Your task to perform on an android device: open app "Google Play Music" (install if not already installed) Image 0: 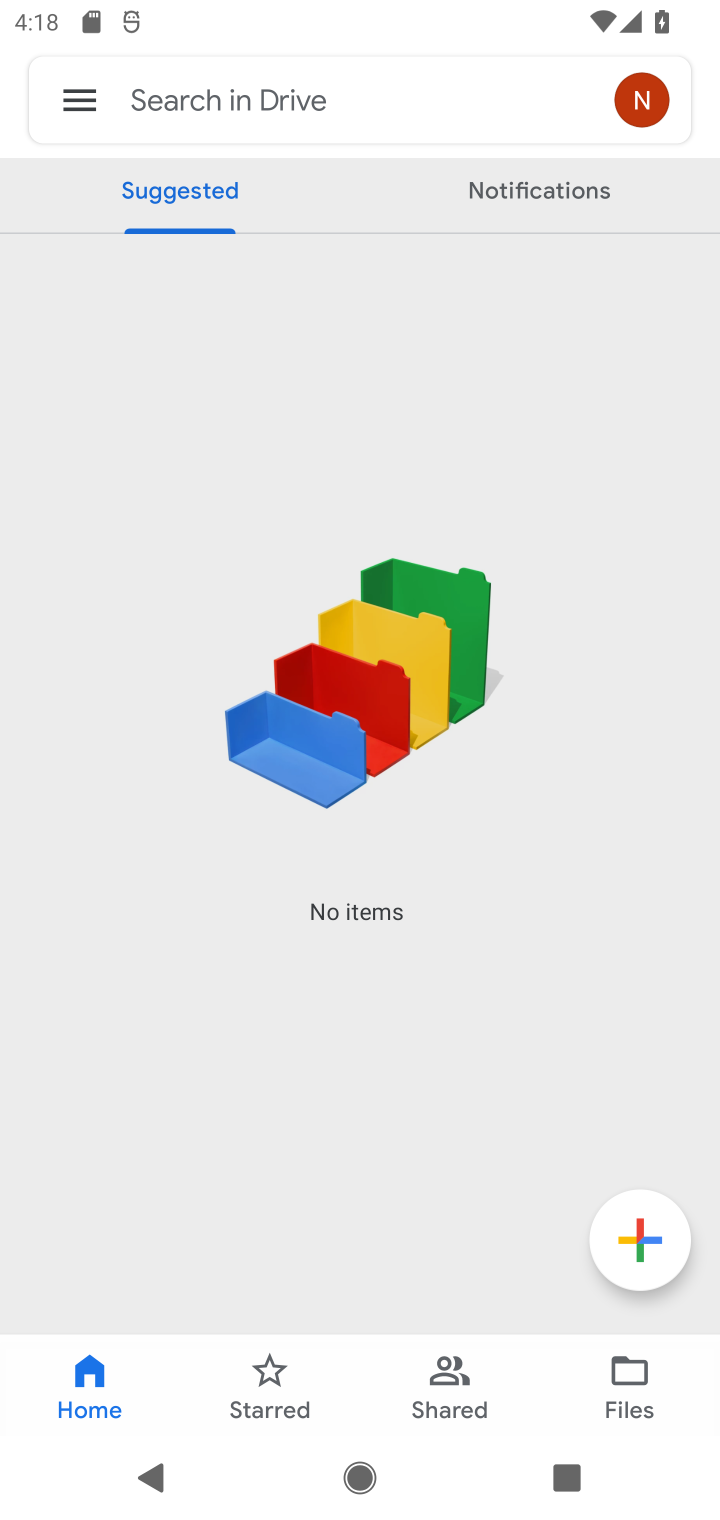
Step 0: press home button
Your task to perform on an android device: open app "Google Play Music" (install if not already installed) Image 1: 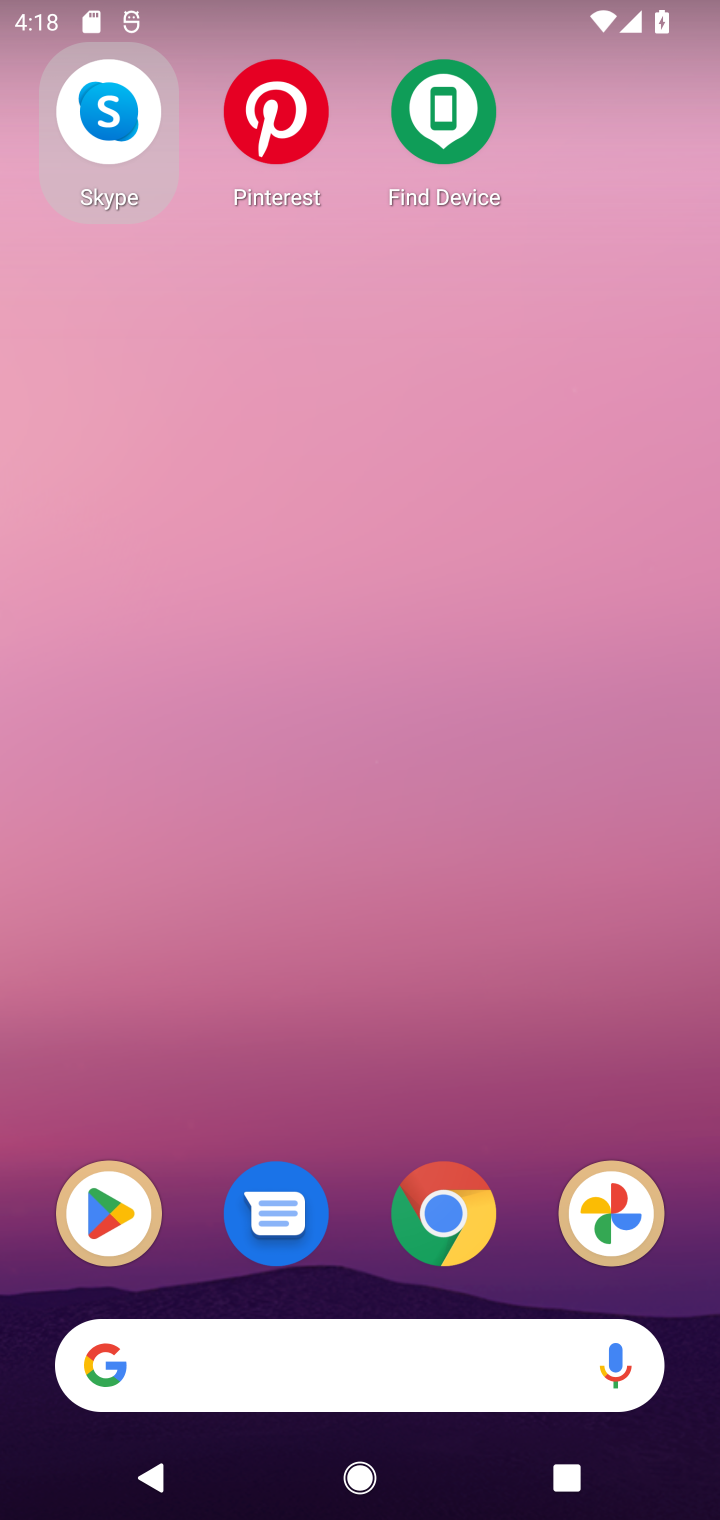
Step 1: drag from (522, 1143) to (503, 145)
Your task to perform on an android device: open app "Google Play Music" (install if not already installed) Image 2: 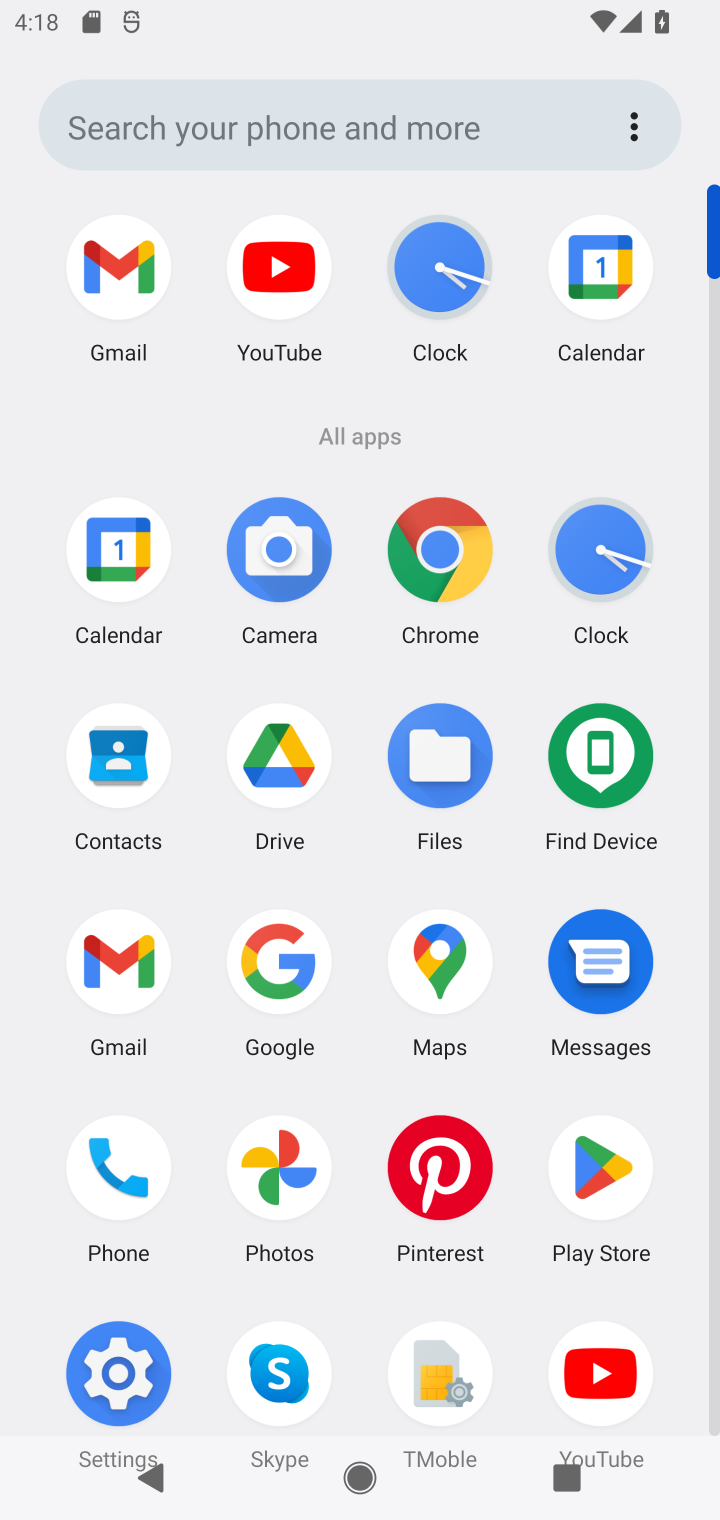
Step 2: click (604, 1162)
Your task to perform on an android device: open app "Google Play Music" (install if not already installed) Image 3: 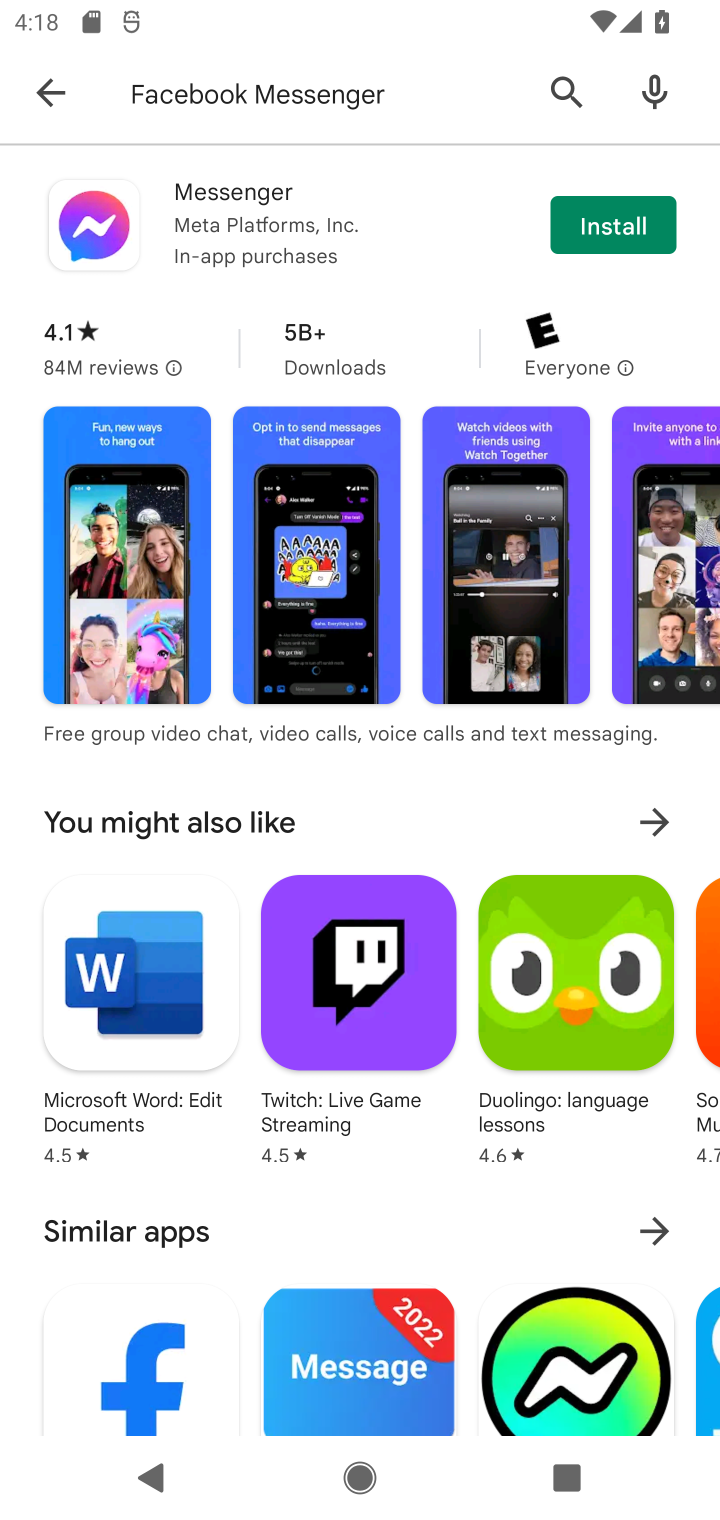
Step 3: click (283, 107)
Your task to perform on an android device: open app "Google Play Music" (install if not already installed) Image 4: 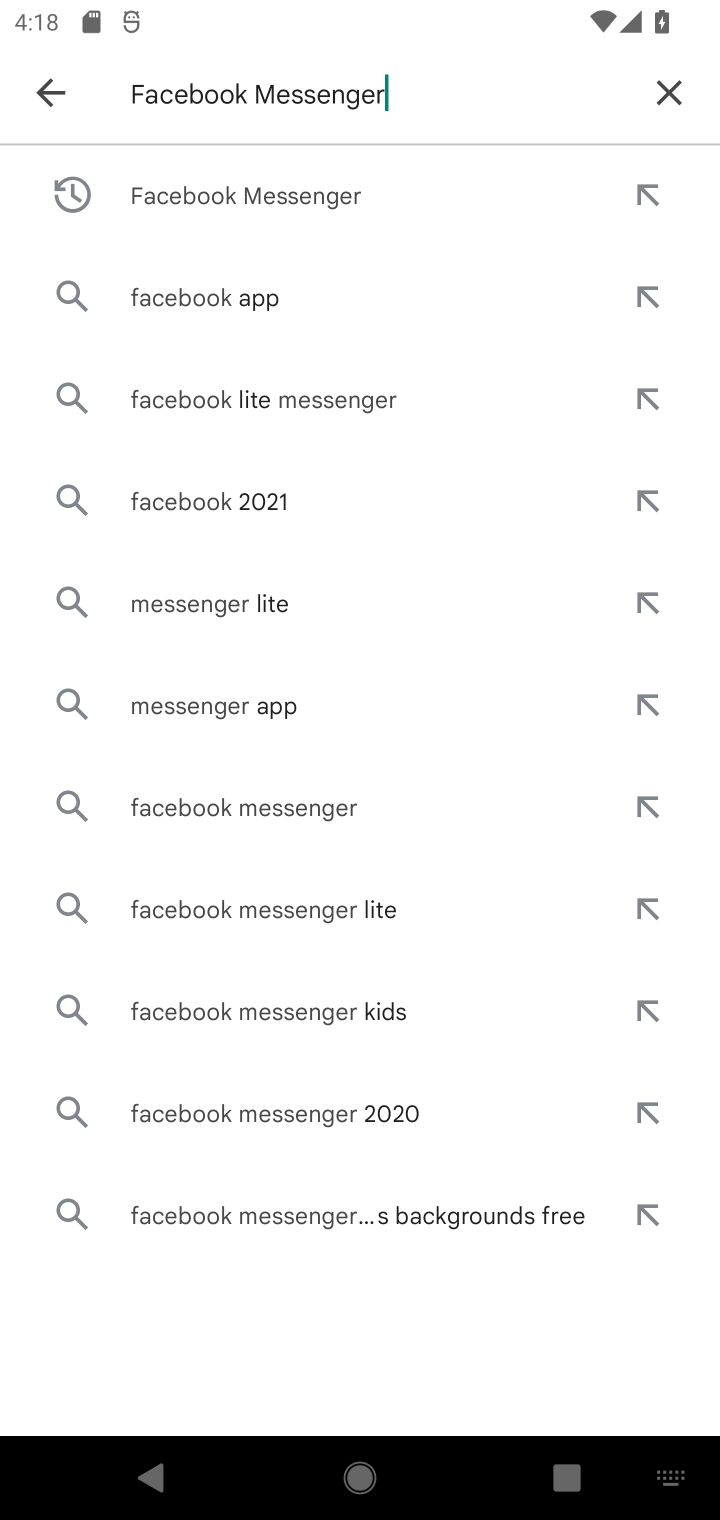
Step 4: click (658, 94)
Your task to perform on an android device: open app "Google Play Music" (install if not already installed) Image 5: 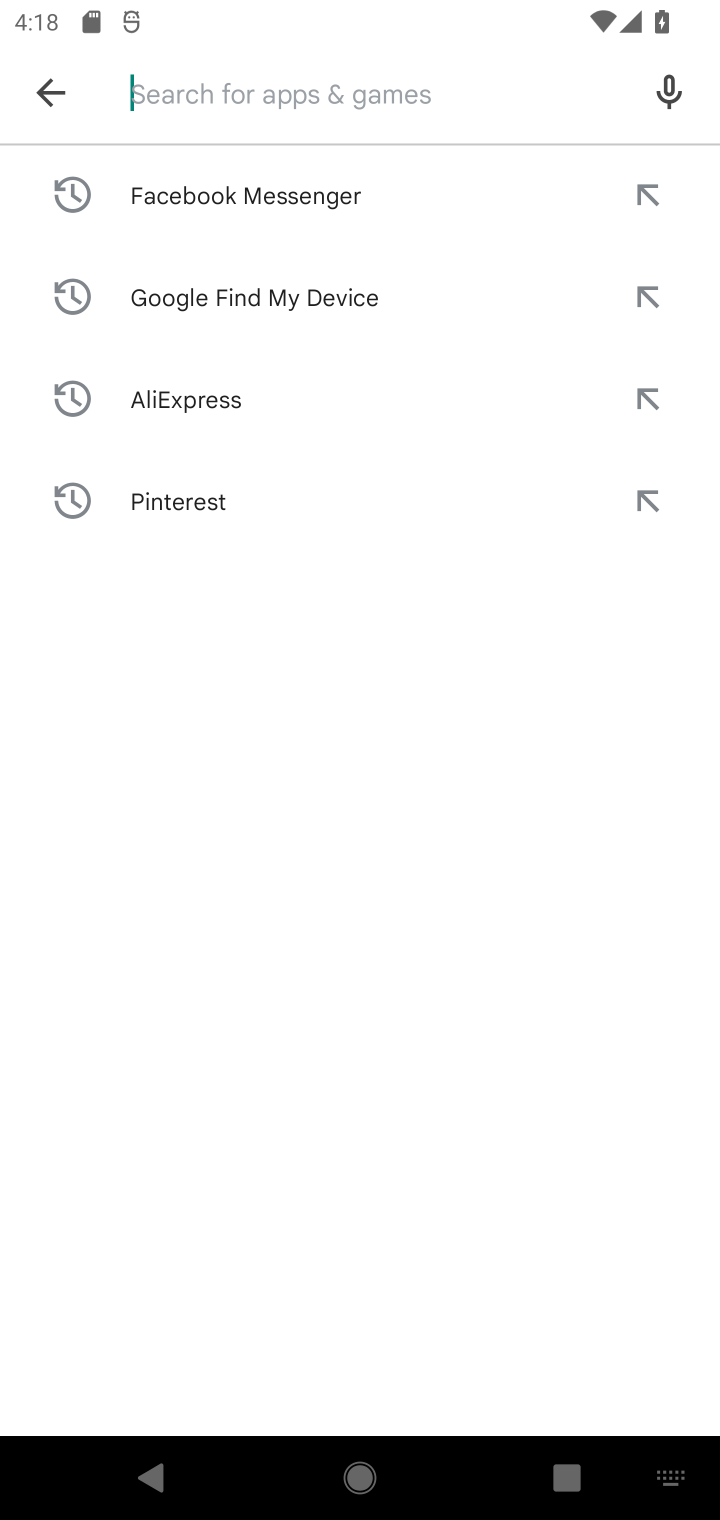
Step 5: type "Google Play Music"
Your task to perform on an android device: open app "Google Play Music" (install if not already installed) Image 6: 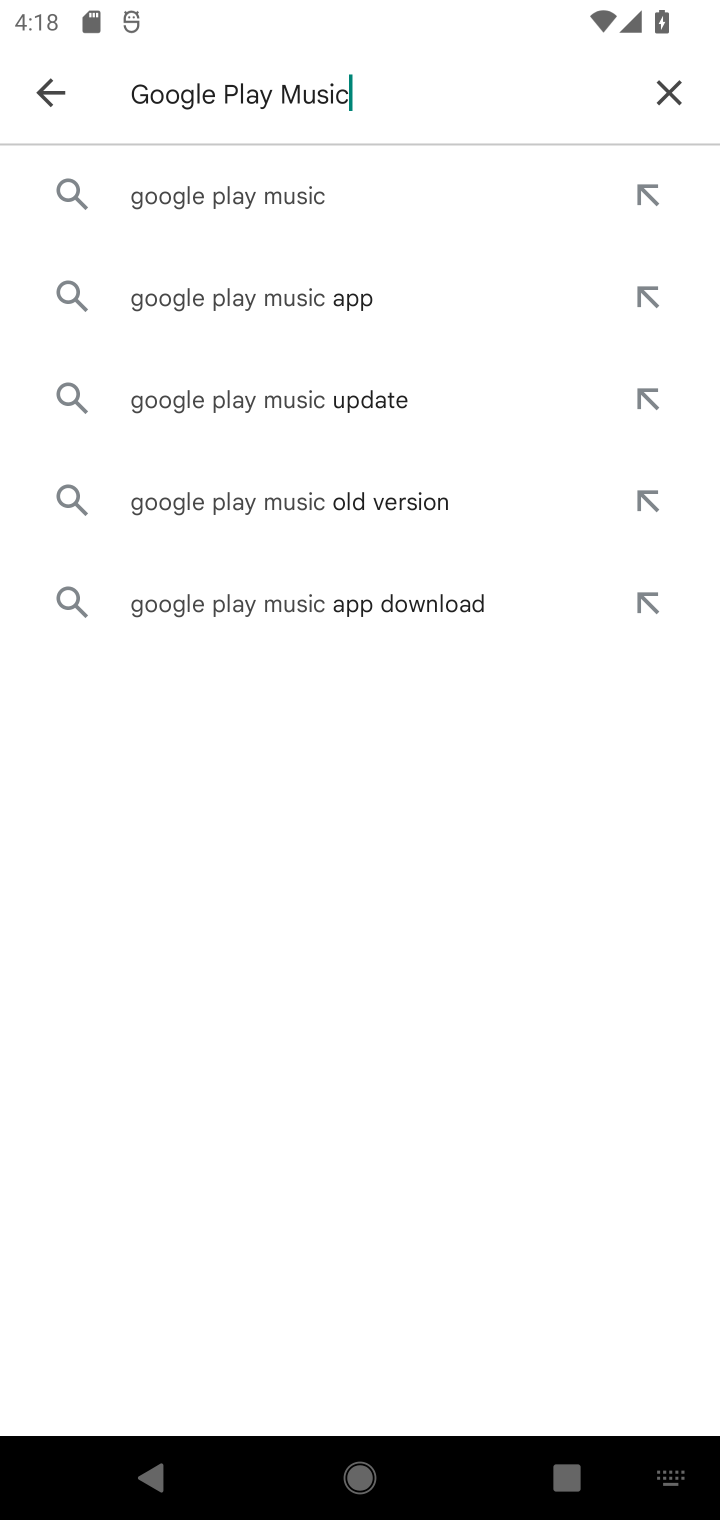
Step 6: press enter
Your task to perform on an android device: open app "Google Play Music" (install if not already installed) Image 7: 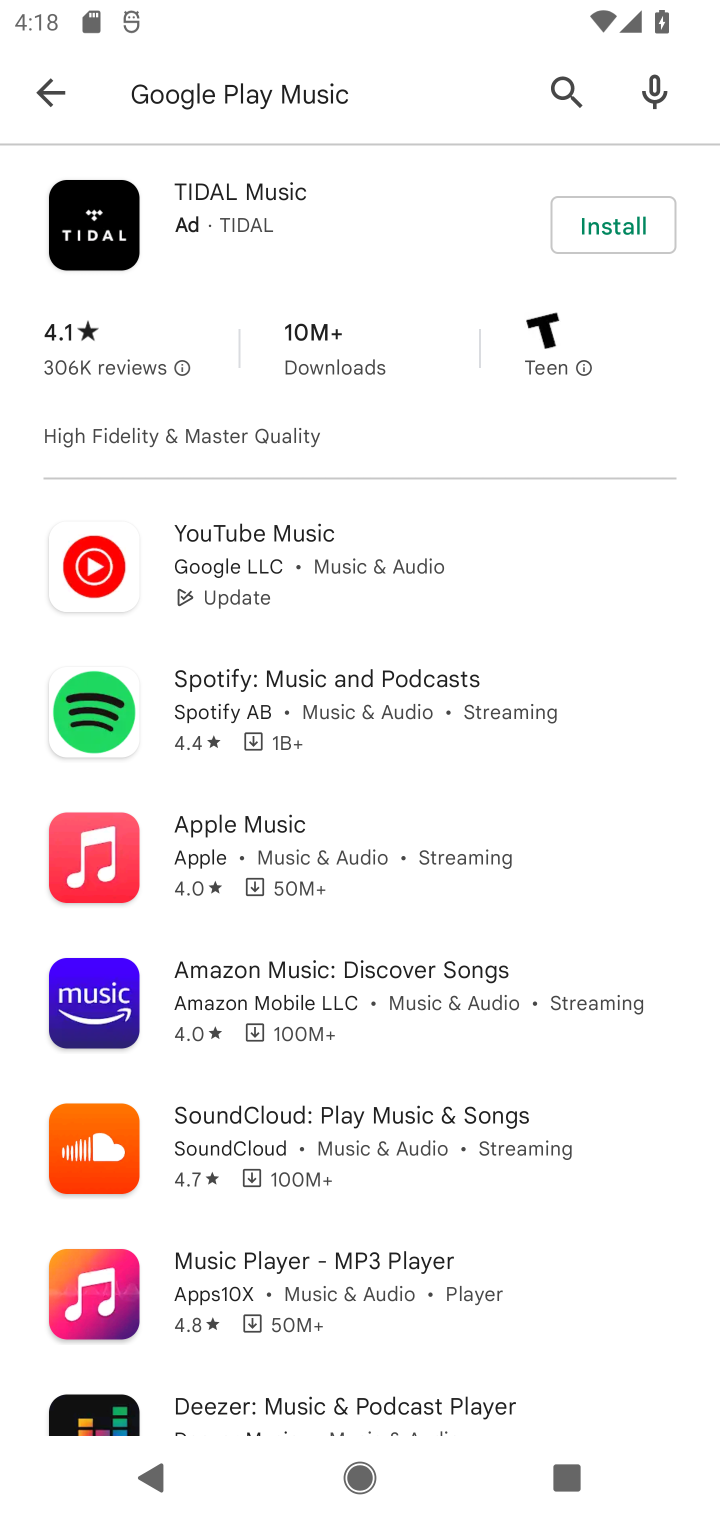
Step 7: click (357, 563)
Your task to perform on an android device: open app "Google Play Music" (install if not already installed) Image 8: 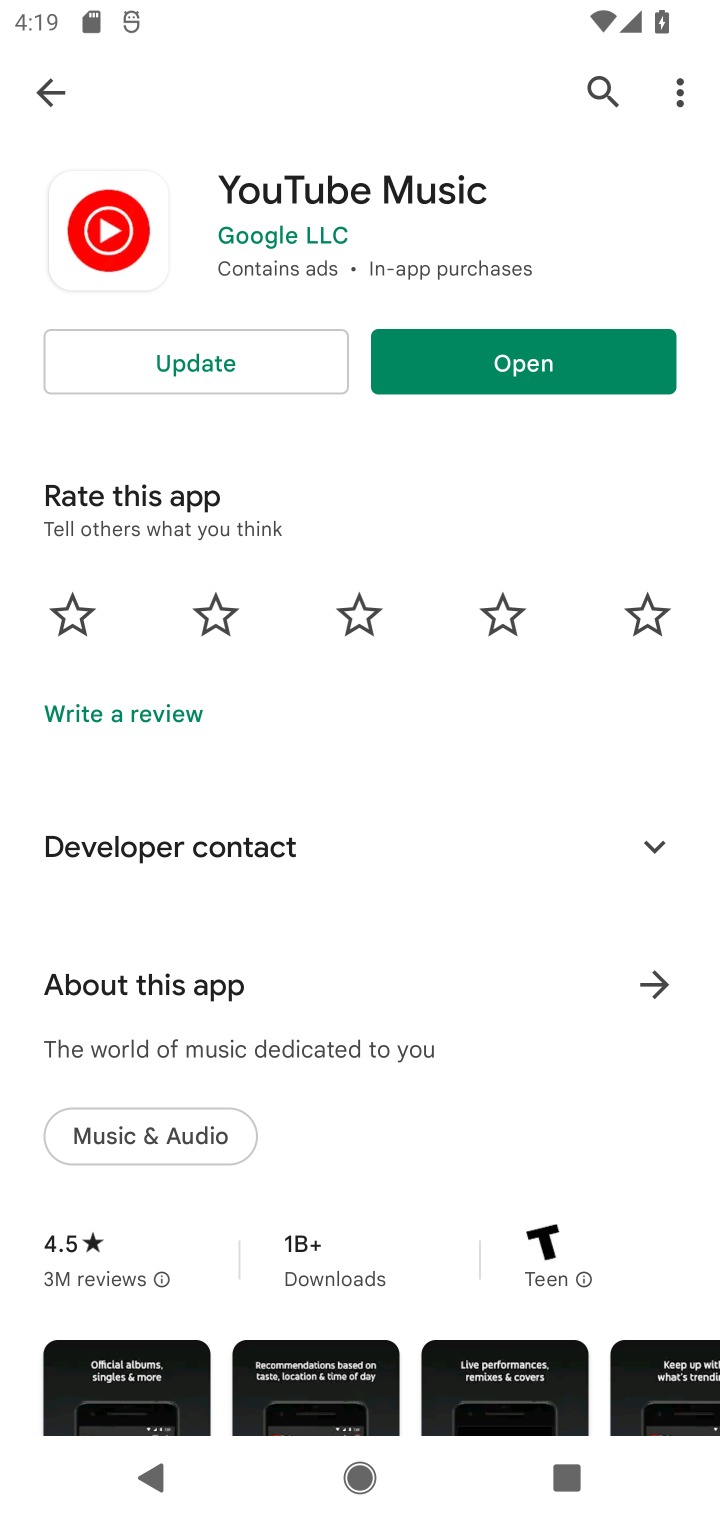
Step 8: click (634, 371)
Your task to perform on an android device: open app "Google Play Music" (install if not already installed) Image 9: 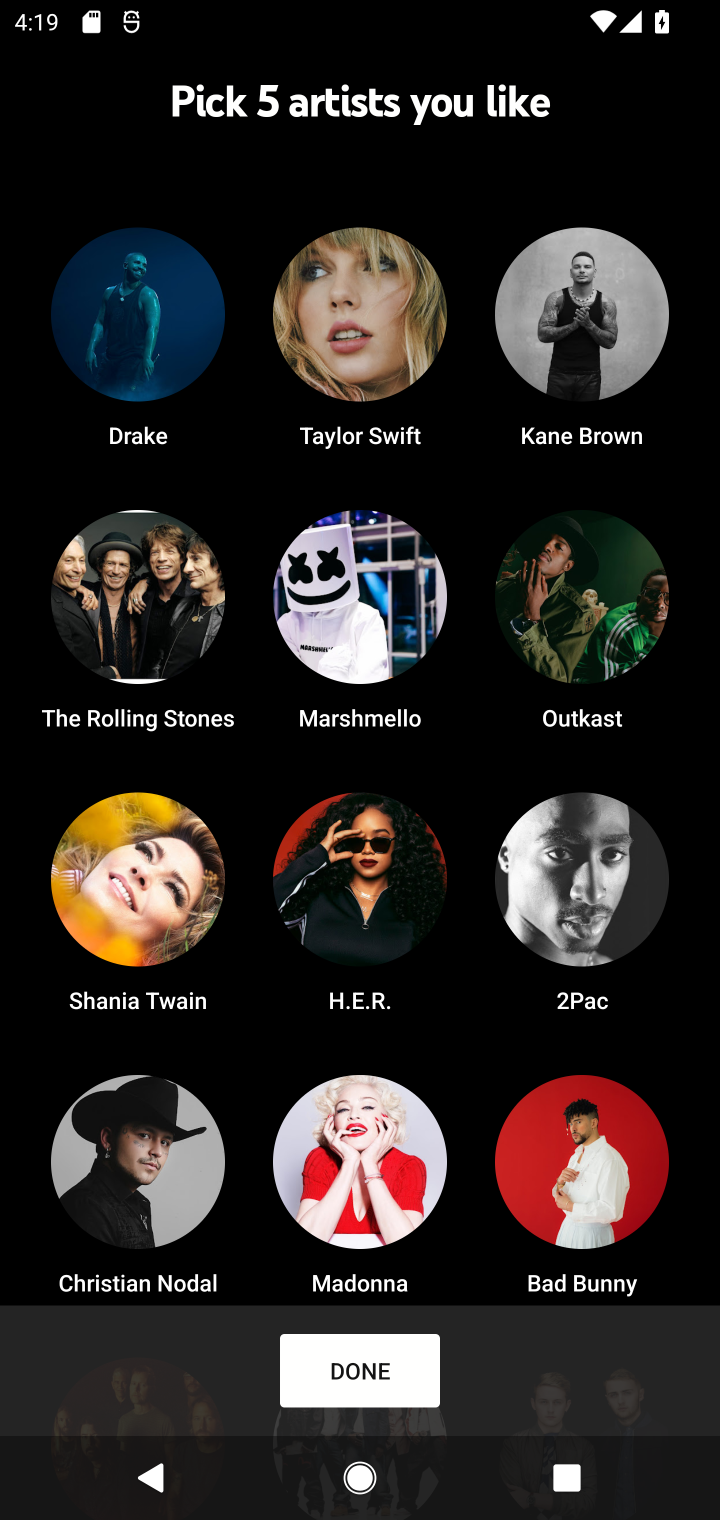
Step 9: task complete